Your task to perform on an android device: turn off wifi Image 0: 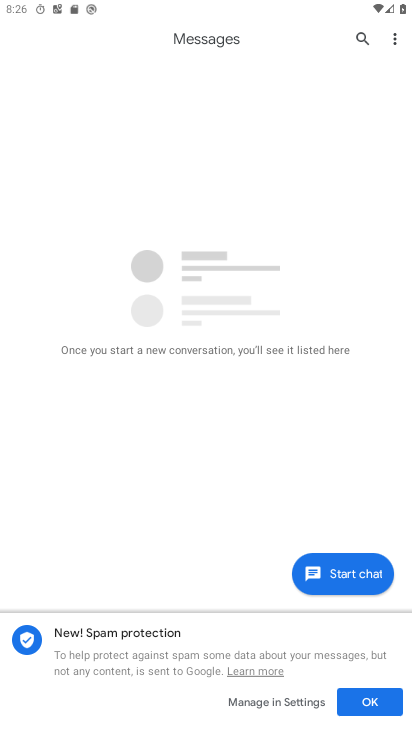
Step 0: press home button
Your task to perform on an android device: turn off wifi Image 1: 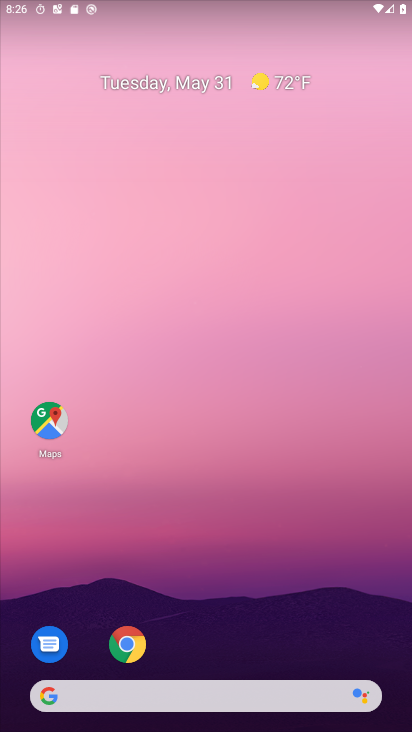
Step 1: drag from (265, 6) to (257, 481)
Your task to perform on an android device: turn off wifi Image 2: 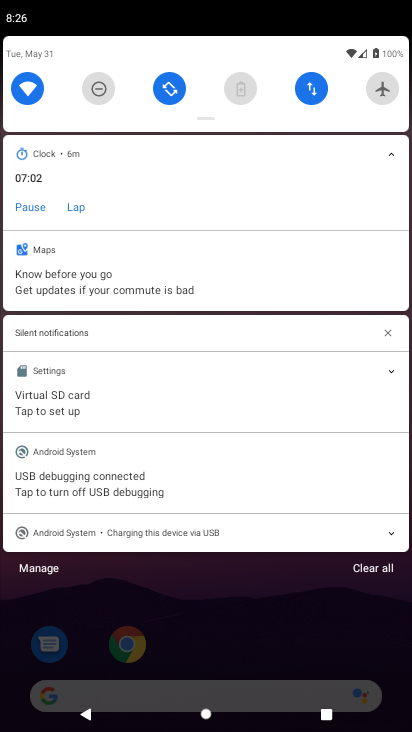
Step 2: click (32, 83)
Your task to perform on an android device: turn off wifi Image 3: 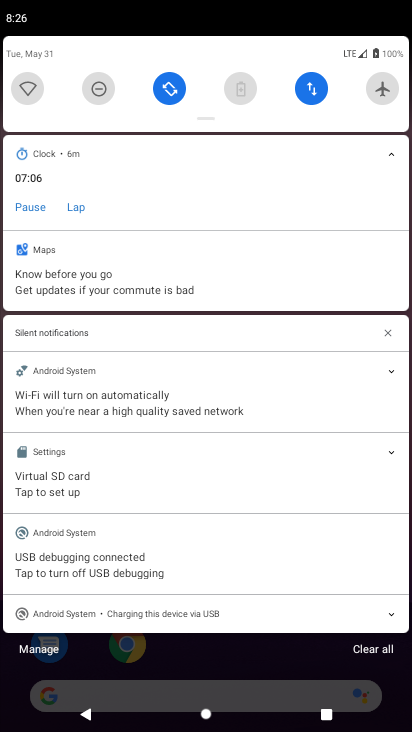
Step 3: click (364, 648)
Your task to perform on an android device: turn off wifi Image 4: 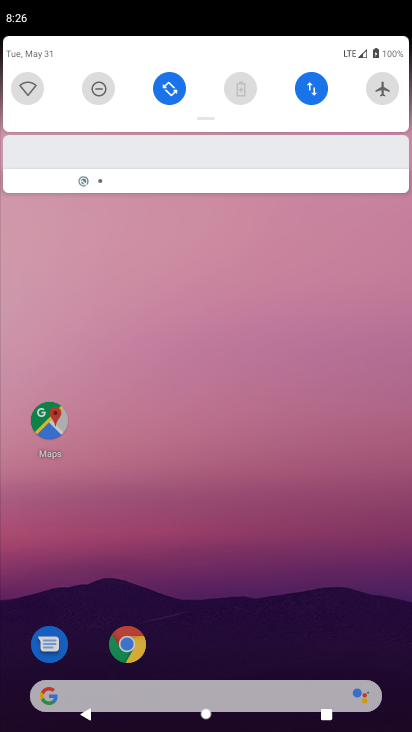
Step 4: task complete